Your task to perform on an android device: choose inbox layout in the gmail app Image 0: 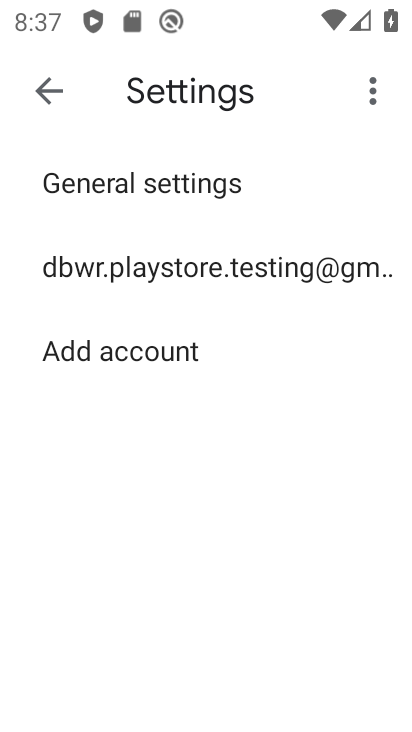
Step 0: press home button
Your task to perform on an android device: choose inbox layout in the gmail app Image 1: 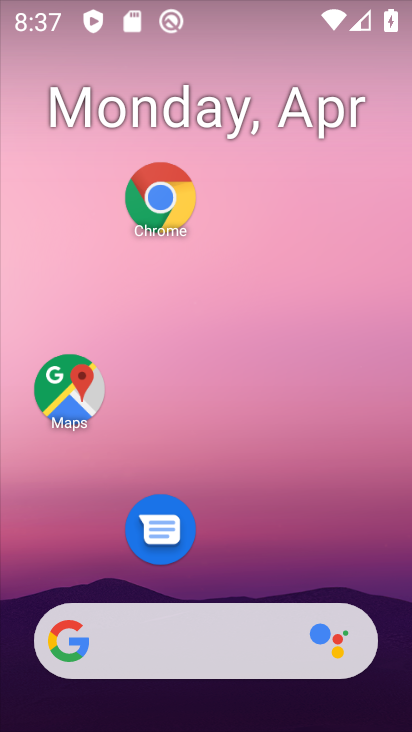
Step 1: drag from (219, 571) to (270, 101)
Your task to perform on an android device: choose inbox layout in the gmail app Image 2: 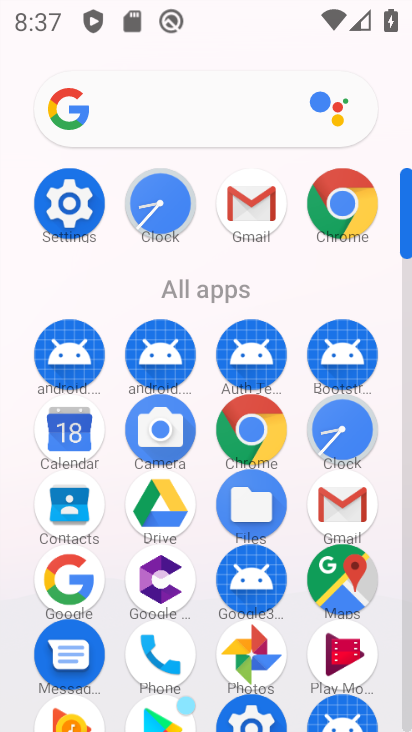
Step 2: click (240, 192)
Your task to perform on an android device: choose inbox layout in the gmail app Image 3: 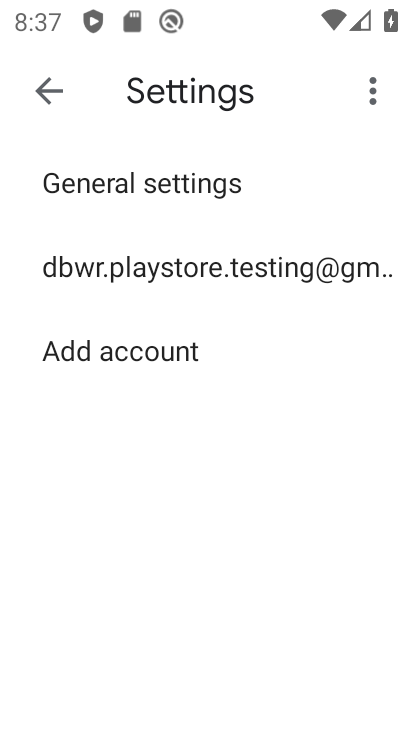
Step 3: click (171, 295)
Your task to perform on an android device: choose inbox layout in the gmail app Image 4: 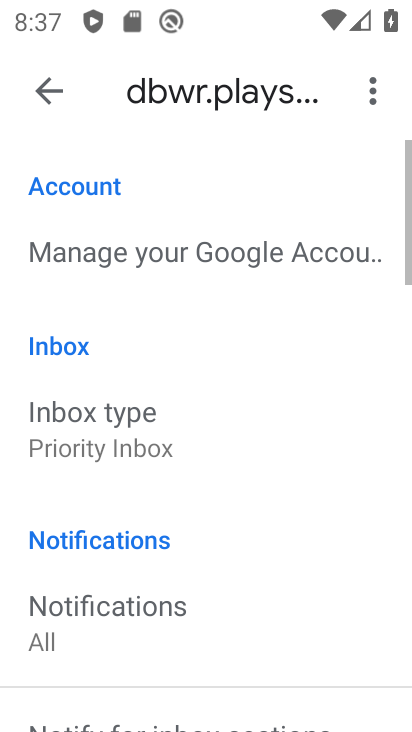
Step 4: click (138, 422)
Your task to perform on an android device: choose inbox layout in the gmail app Image 5: 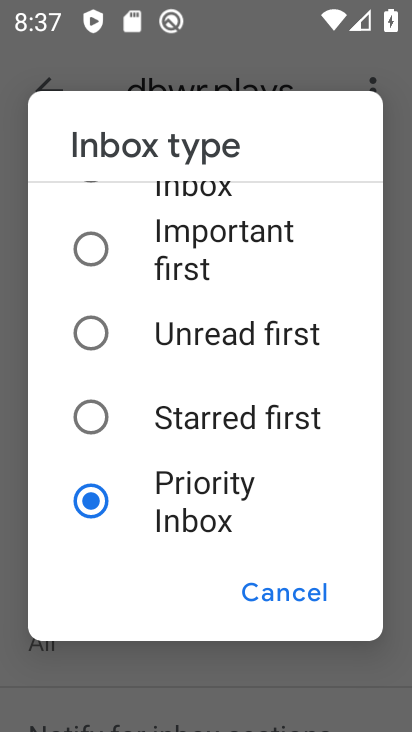
Step 5: drag from (230, 211) to (230, 633)
Your task to perform on an android device: choose inbox layout in the gmail app Image 6: 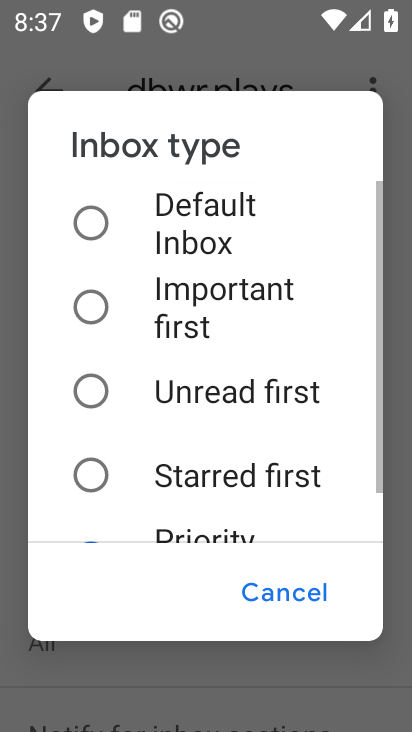
Step 6: click (97, 231)
Your task to perform on an android device: choose inbox layout in the gmail app Image 7: 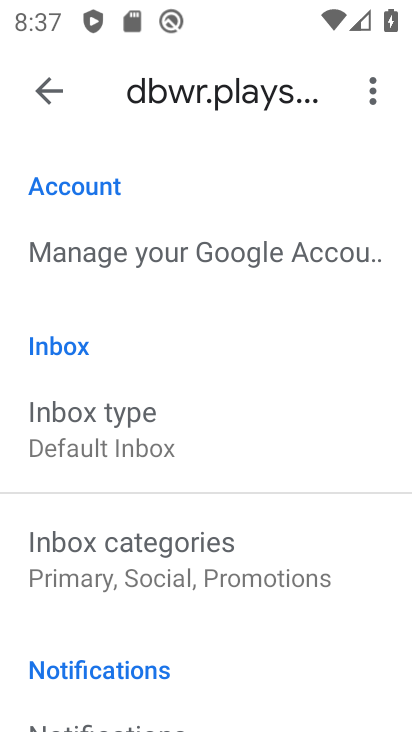
Step 7: task complete